Your task to perform on an android device: Open wifi settings Image 0: 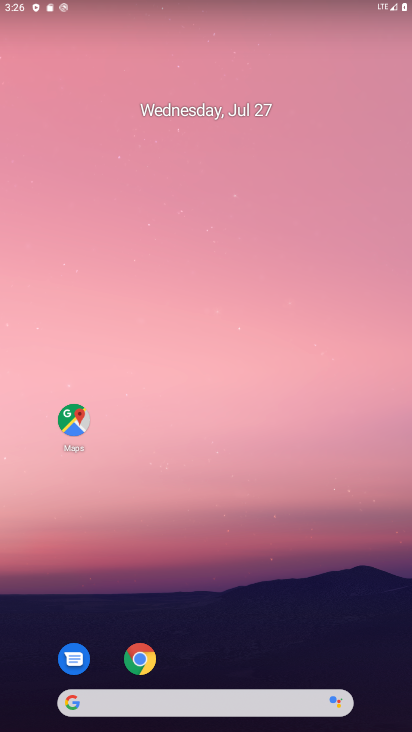
Step 0: drag from (246, 612) to (241, 69)
Your task to perform on an android device: Open wifi settings Image 1: 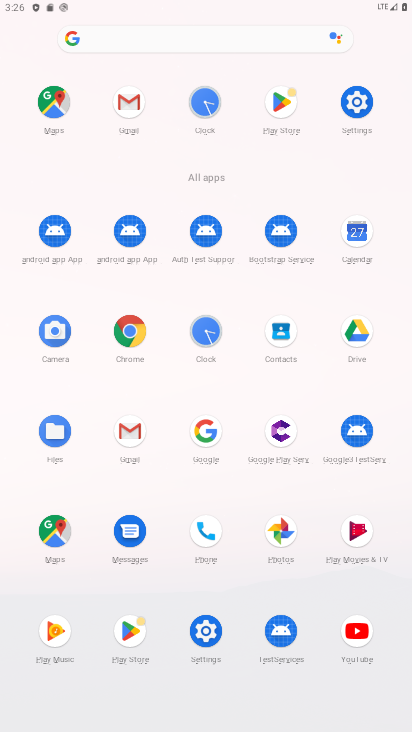
Step 1: click (352, 104)
Your task to perform on an android device: Open wifi settings Image 2: 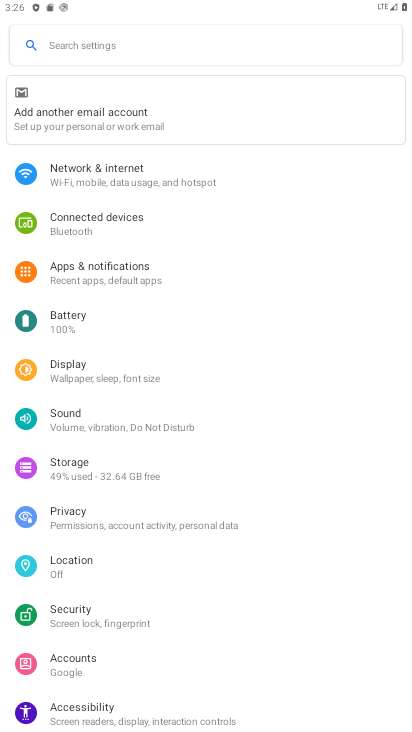
Step 2: click (67, 167)
Your task to perform on an android device: Open wifi settings Image 3: 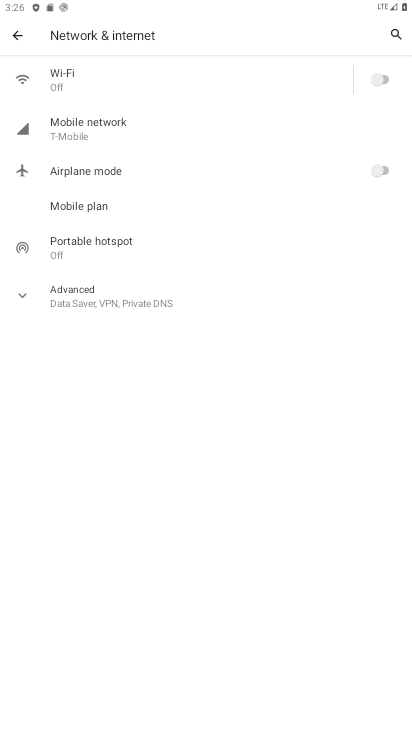
Step 3: click (35, 81)
Your task to perform on an android device: Open wifi settings Image 4: 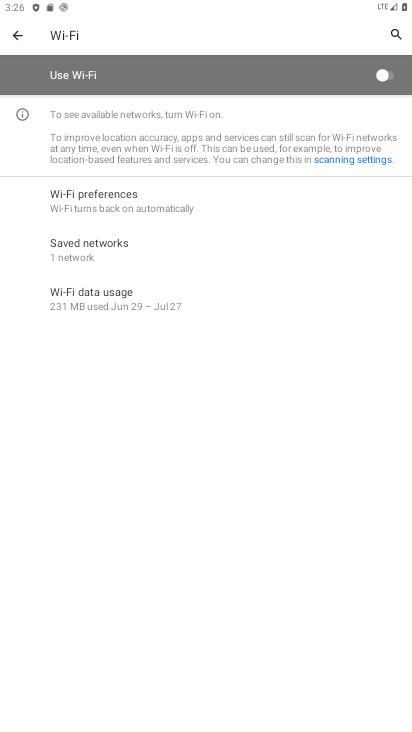
Step 4: task complete